Your task to perform on an android device: Show the shopping cart on bestbuy.com. Search for corsair k70 on bestbuy.com, select the first entry, add it to the cart, then select checkout. Image 0: 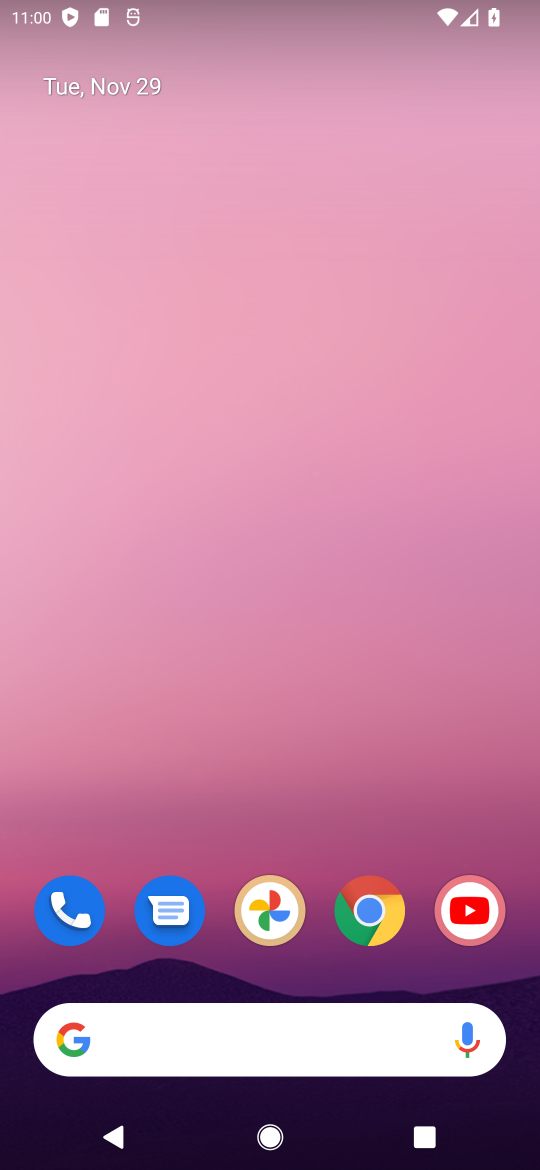
Step 0: click (375, 913)
Your task to perform on an android device: Show the shopping cart on bestbuy.com. Search for corsair k70 on bestbuy.com, select the first entry, add it to the cart, then select checkout. Image 1: 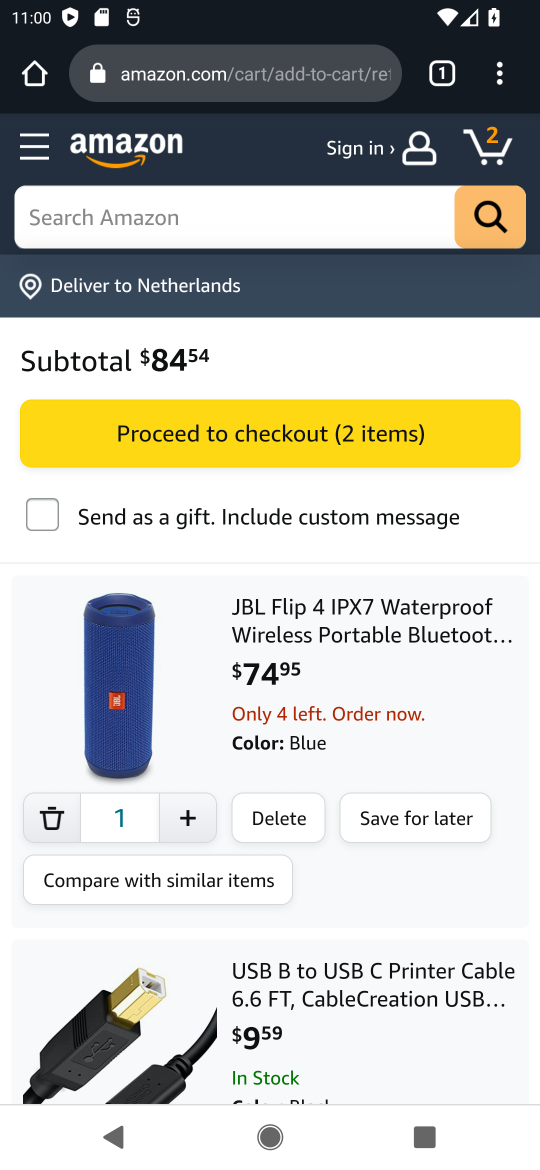
Step 1: click (233, 84)
Your task to perform on an android device: Show the shopping cart on bestbuy.com. Search for corsair k70 on bestbuy.com, select the first entry, add it to the cart, then select checkout. Image 2: 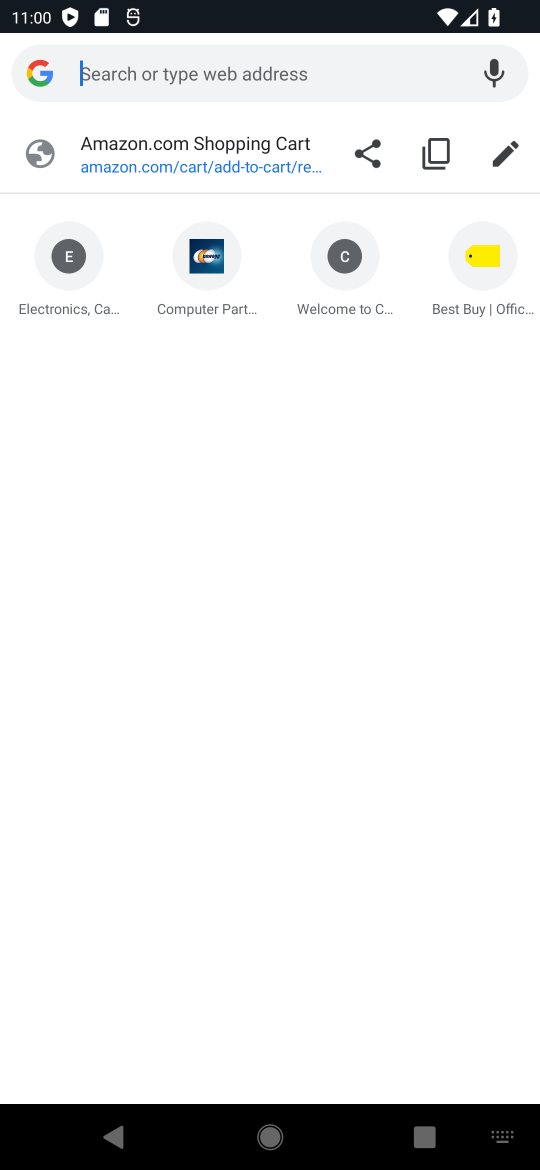
Step 2: click (472, 271)
Your task to perform on an android device: Show the shopping cart on bestbuy.com. Search for corsair k70 on bestbuy.com, select the first entry, add it to the cart, then select checkout. Image 3: 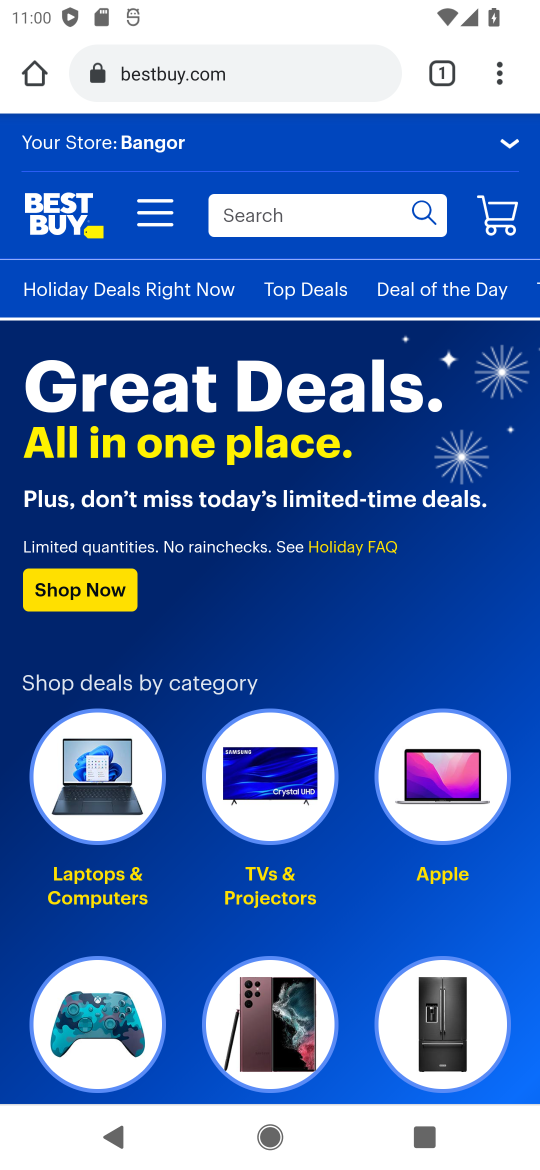
Step 3: click (490, 216)
Your task to perform on an android device: Show the shopping cart on bestbuy.com. Search for corsair k70 on bestbuy.com, select the first entry, add it to the cart, then select checkout. Image 4: 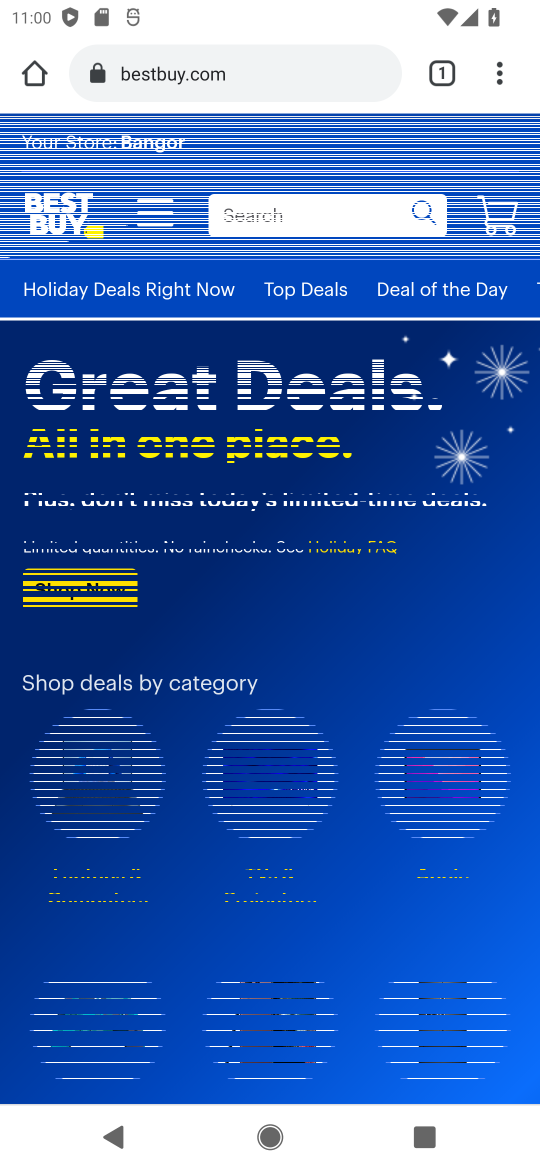
Step 4: click (490, 216)
Your task to perform on an android device: Show the shopping cart on bestbuy.com. Search for corsair k70 on bestbuy.com, select the first entry, add it to the cart, then select checkout. Image 5: 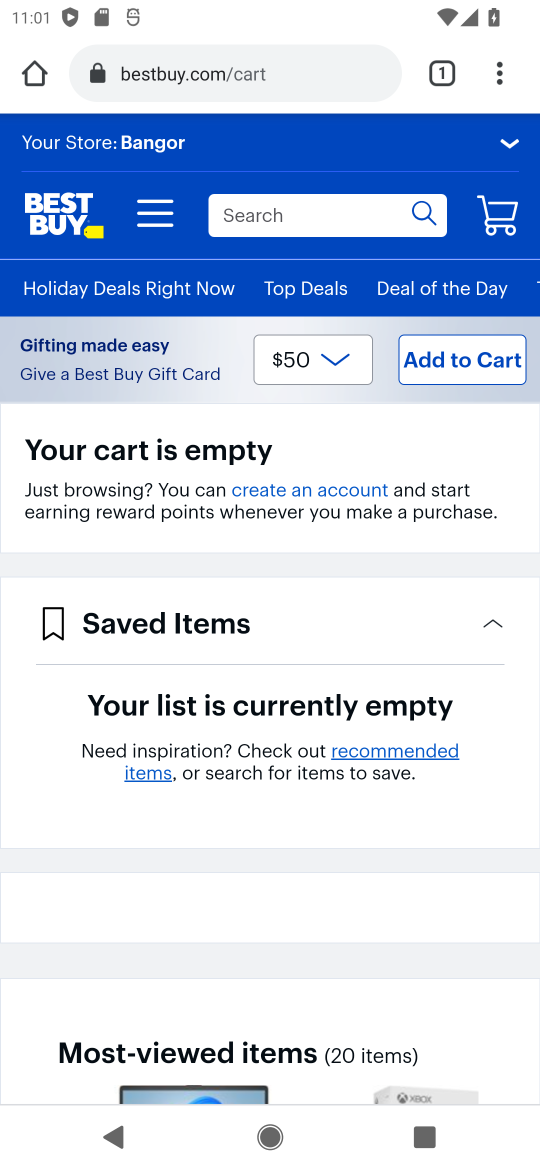
Step 5: click (256, 219)
Your task to perform on an android device: Show the shopping cart on bestbuy.com. Search for corsair k70 on bestbuy.com, select the first entry, add it to the cart, then select checkout. Image 6: 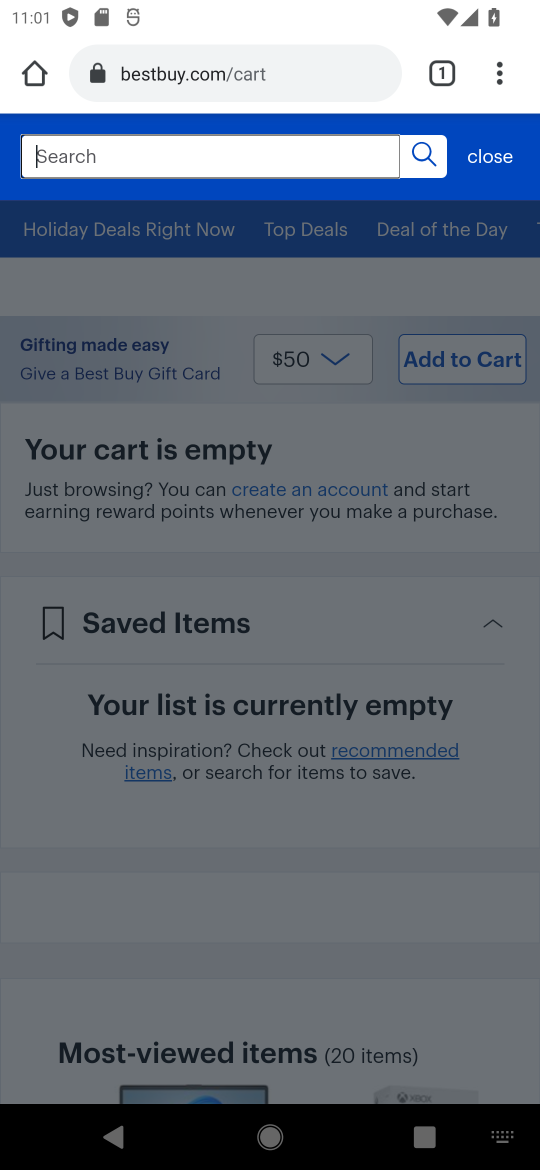
Step 6: type "corsair k70 "
Your task to perform on an android device: Show the shopping cart on bestbuy.com. Search for corsair k70 on bestbuy.com, select the first entry, add it to the cart, then select checkout. Image 7: 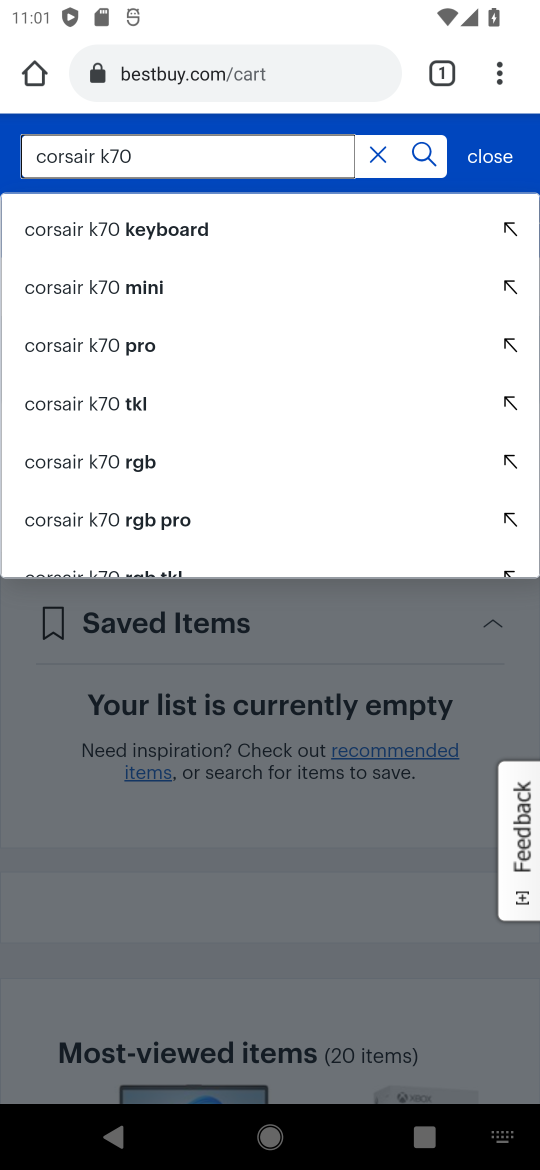
Step 7: click (424, 150)
Your task to perform on an android device: Show the shopping cart on bestbuy.com. Search for corsair k70 on bestbuy.com, select the first entry, add it to the cart, then select checkout. Image 8: 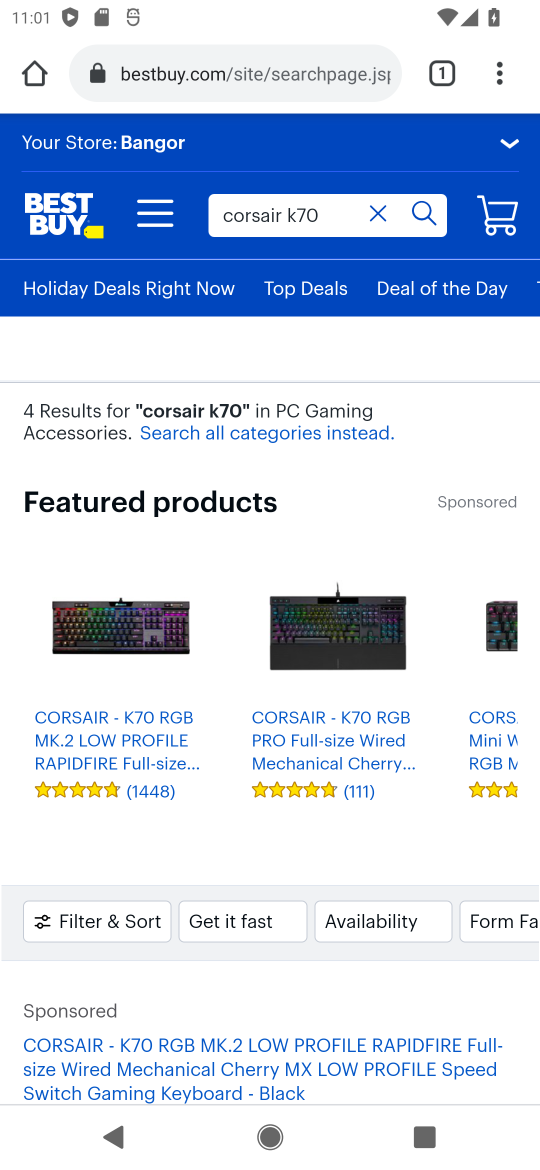
Step 8: drag from (232, 832) to (219, 298)
Your task to perform on an android device: Show the shopping cart on bestbuy.com. Search for corsair k70 on bestbuy.com, select the first entry, add it to the cart, then select checkout. Image 9: 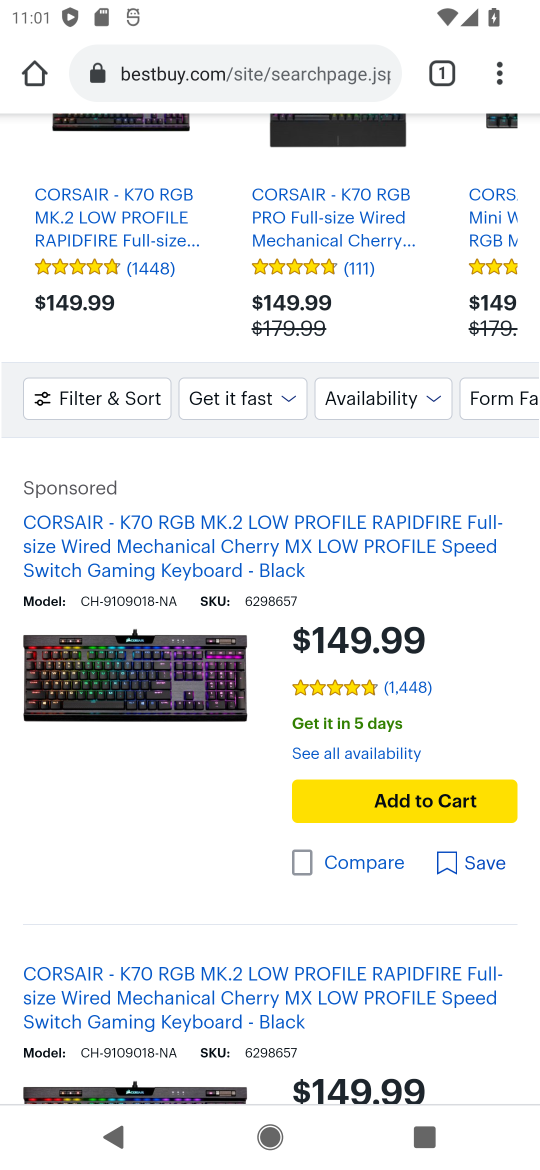
Step 9: click (214, 677)
Your task to perform on an android device: Show the shopping cart on bestbuy.com. Search for corsair k70 on bestbuy.com, select the first entry, add it to the cart, then select checkout. Image 10: 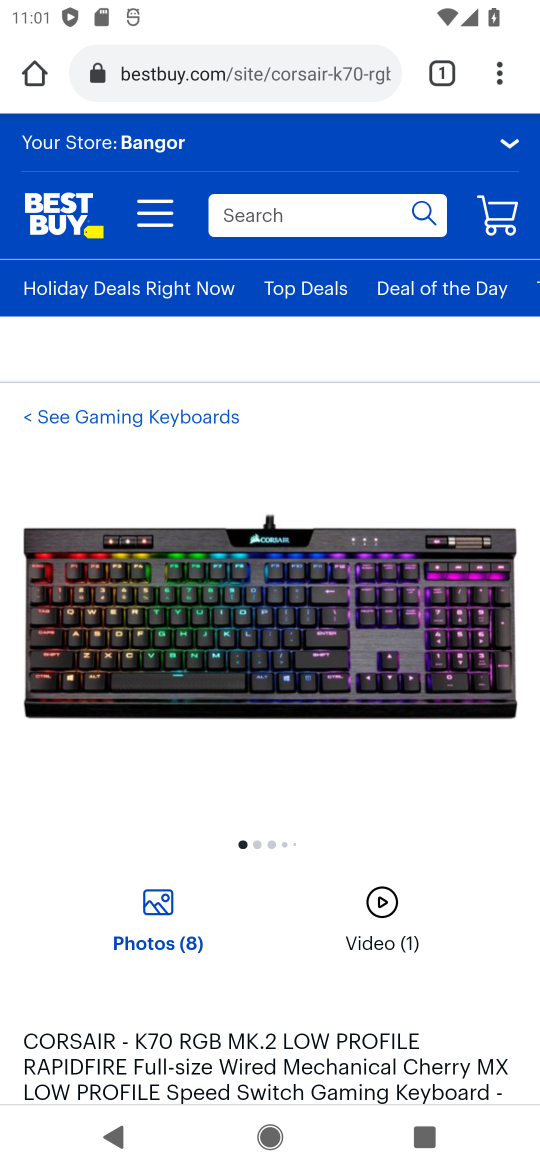
Step 10: drag from (340, 830) to (305, 382)
Your task to perform on an android device: Show the shopping cart on bestbuy.com. Search for corsair k70 on bestbuy.com, select the first entry, add it to the cart, then select checkout. Image 11: 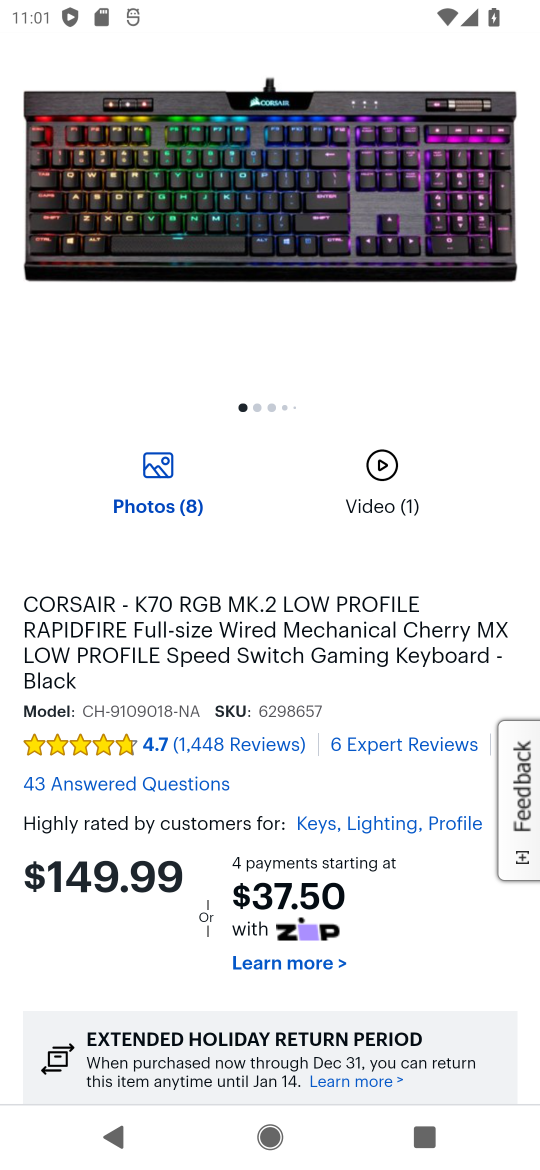
Step 11: drag from (341, 781) to (284, 292)
Your task to perform on an android device: Show the shopping cart on bestbuy.com. Search for corsair k70 on bestbuy.com, select the first entry, add it to the cart, then select checkout. Image 12: 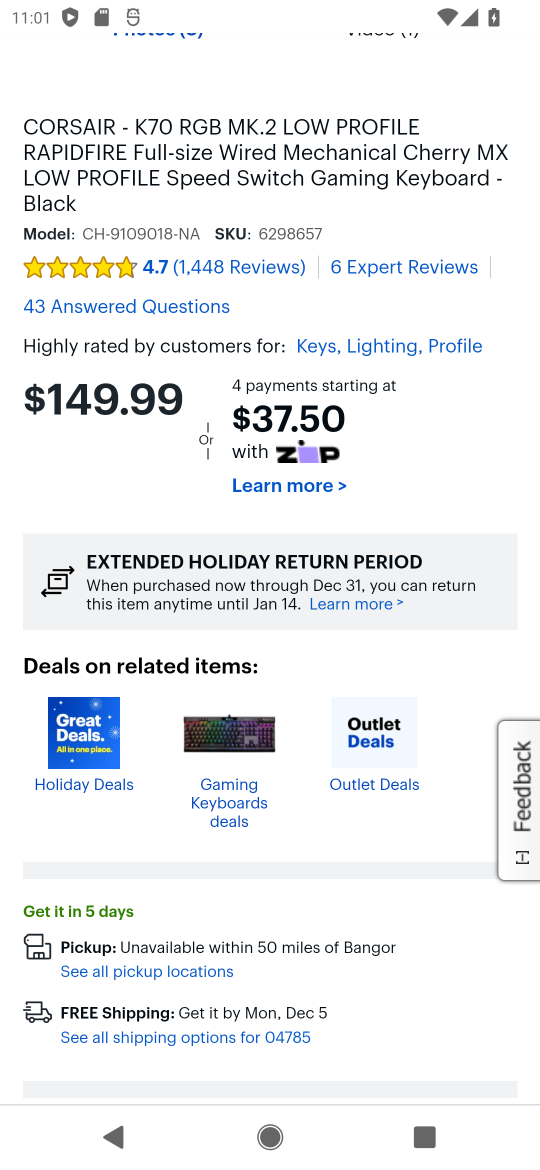
Step 12: drag from (297, 493) to (268, 267)
Your task to perform on an android device: Show the shopping cart on bestbuy.com. Search for corsair k70 on bestbuy.com, select the first entry, add it to the cart, then select checkout. Image 13: 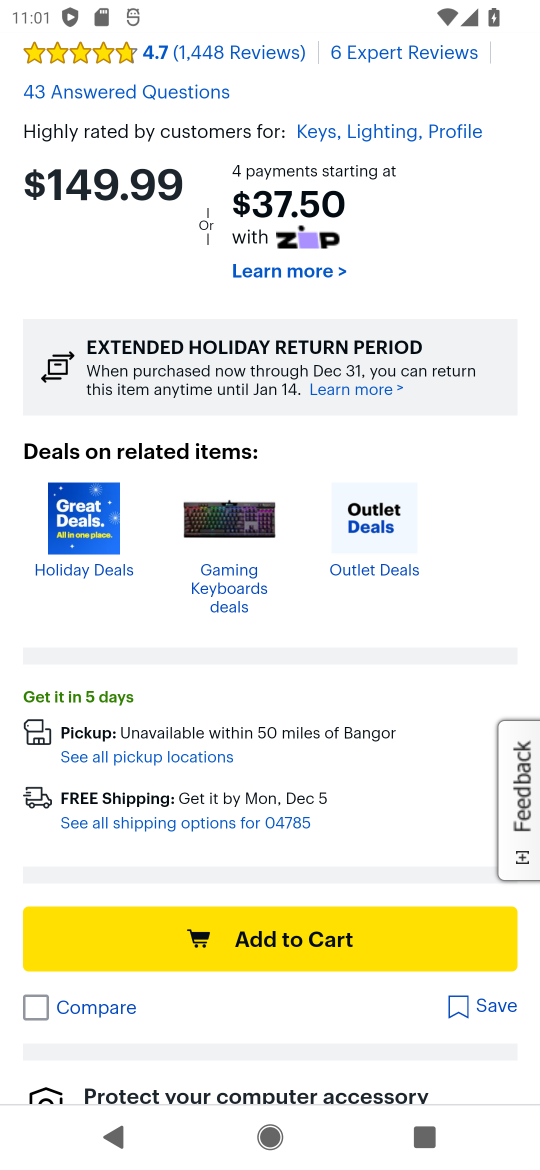
Step 13: click (267, 938)
Your task to perform on an android device: Show the shopping cart on bestbuy.com. Search for corsair k70 on bestbuy.com, select the first entry, add it to the cart, then select checkout. Image 14: 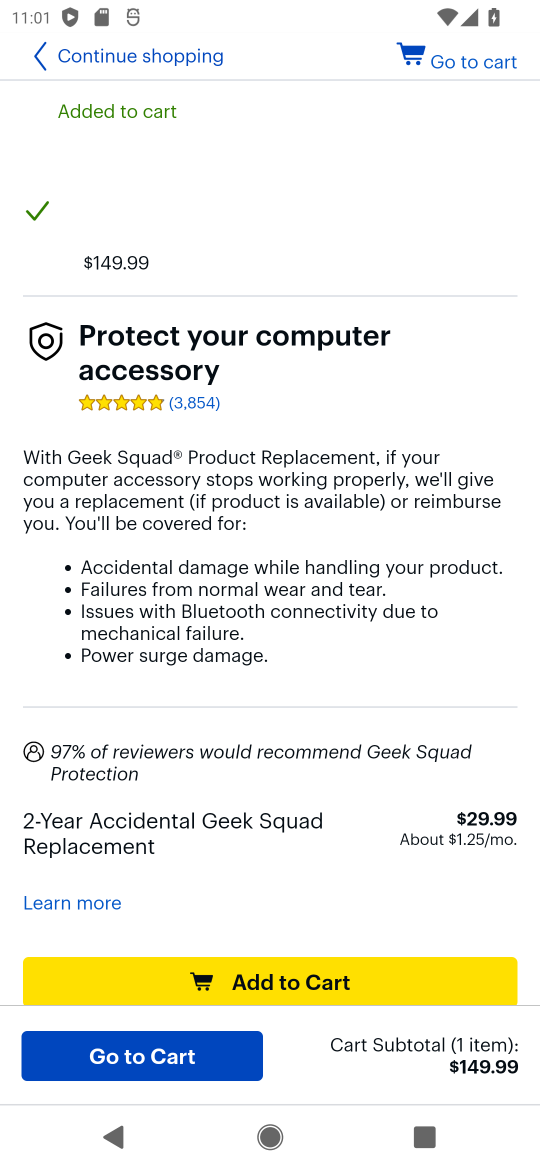
Step 14: click (448, 65)
Your task to perform on an android device: Show the shopping cart on bestbuy.com. Search for corsair k70 on bestbuy.com, select the first entry, add it to the cart, then select checkout. Image 15: 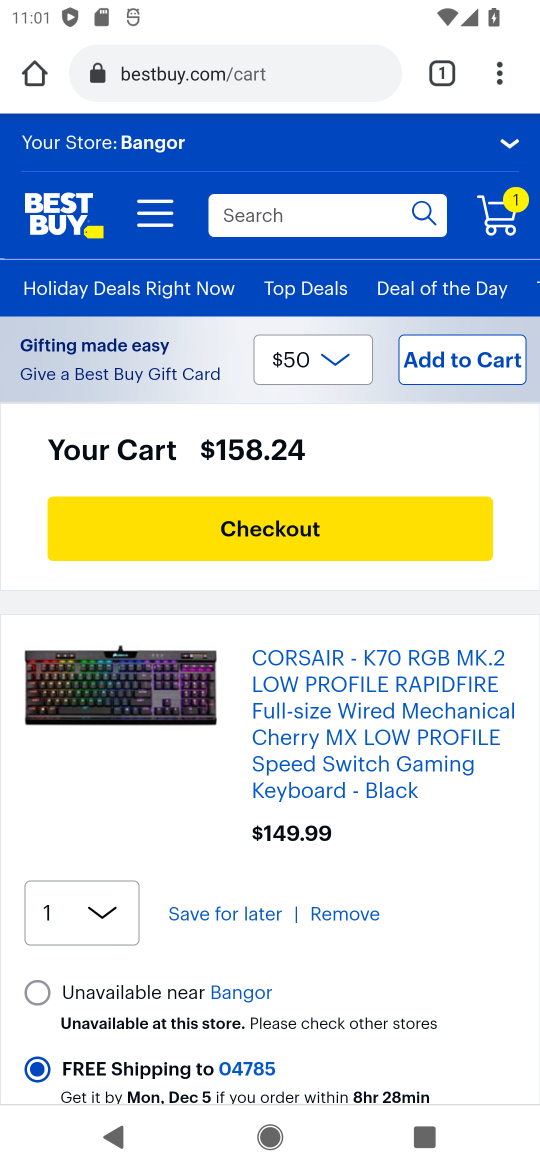
Step 15: click (245, 535)
Your task to perform on an android device: Show the shopping cart on bestbuy.com. Search for corsair k70 on bestbuy.com, select the first entry, add it to the cart, then select checkout. Image 16: 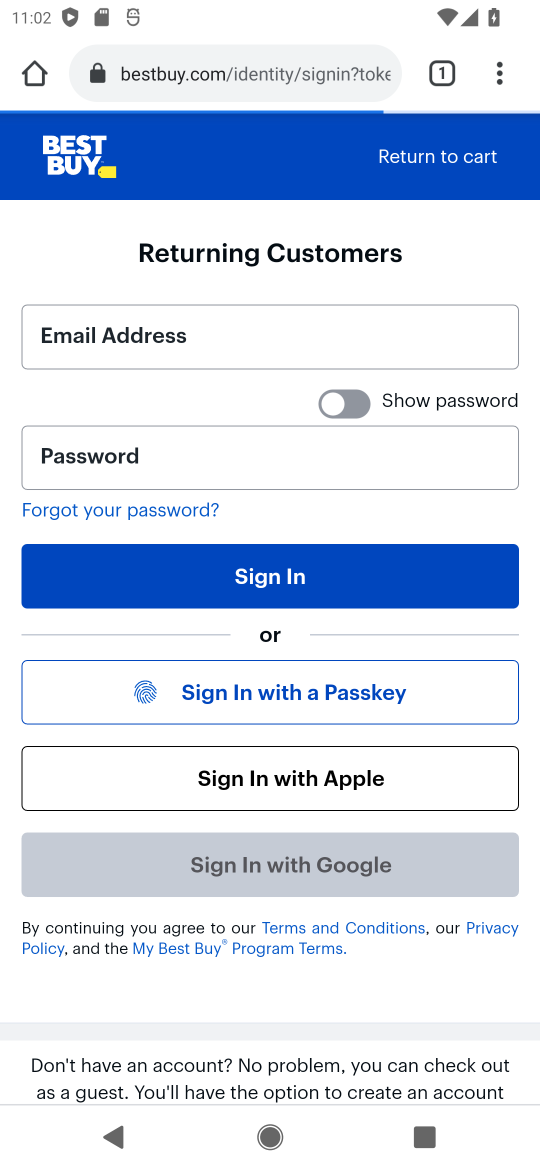
Step 16: task complete